Your task to perform on an android device: Play the last video I watched on Youtube Image 0: 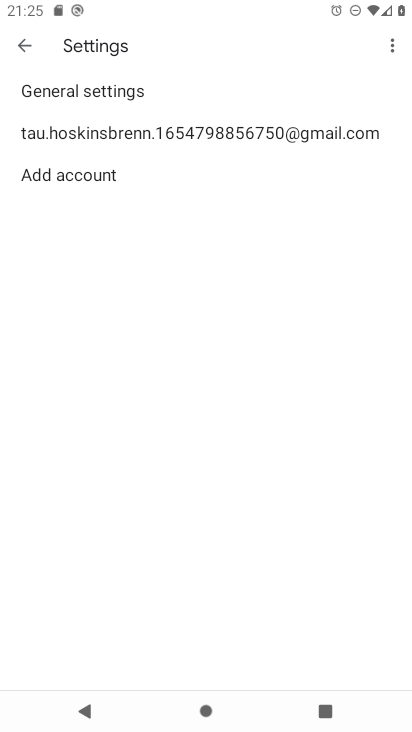
Step 0: press home button
Your task to perform on an android device: Play the last video I watched on Youtube Image 1: 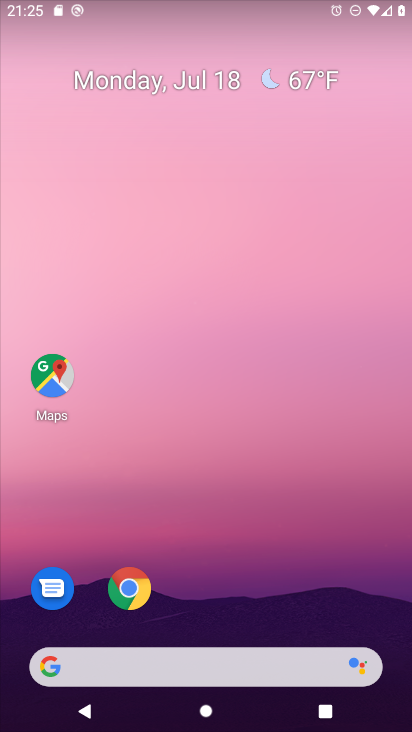
Step 1: drag from (382, 587) to (331, 181)
Your task to perform on an android device: Play the last video I watched on Youtube Image 2: 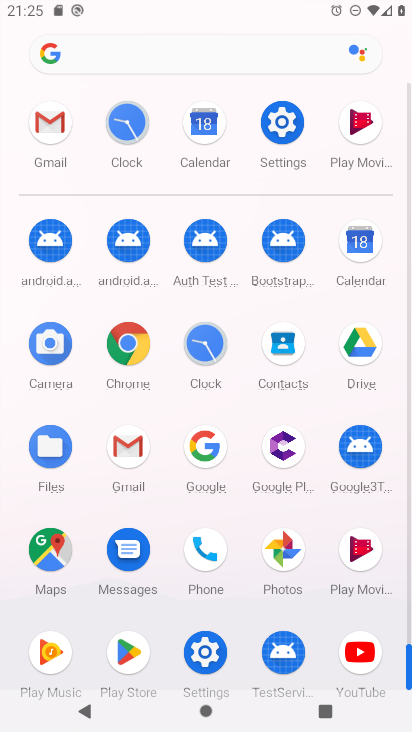
Step 2: click (360, 655)
Your task to perform on an android device: Play the last video I watched on Youtube Image 3: 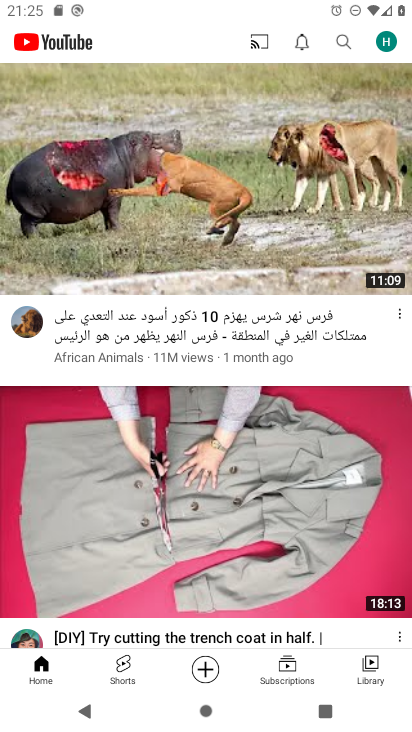
Step 3: click (364, 662)
Your task to perform on an android device: Play the last video I watched on Youtube Image 4: 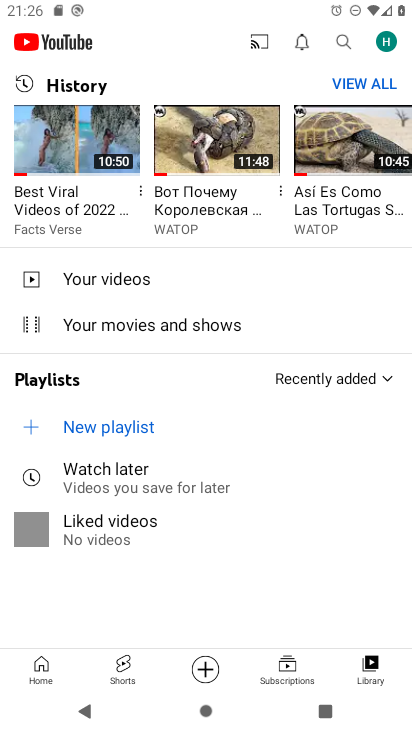
Step 4: click (75, 138)
Your task to perform on an android device: Play the last video I watched on Youtube Image 5: 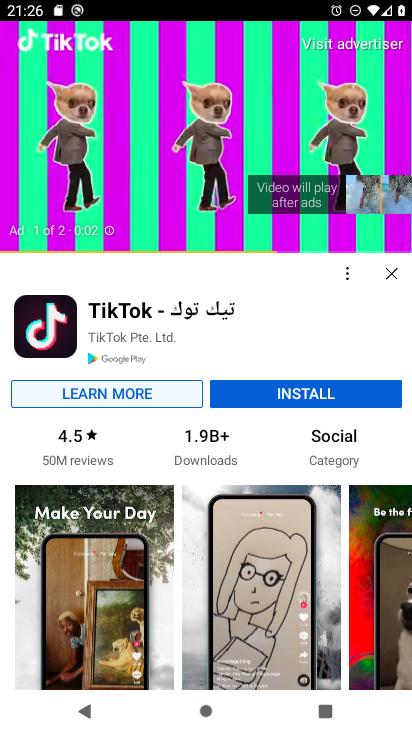
Step 5: click (392, 272)
Your task to perform on an android device: Play the last video I watched on Youtube Image 6: 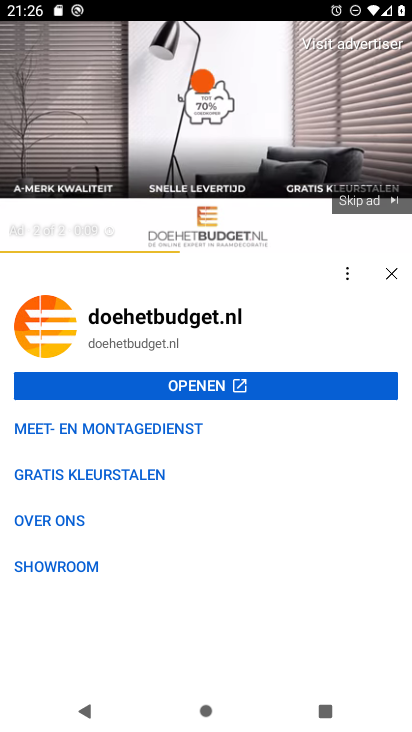
Step 6: click (374, 201)
Your task to perform on an android device: Play the last video I watched on Youtube Image 7: 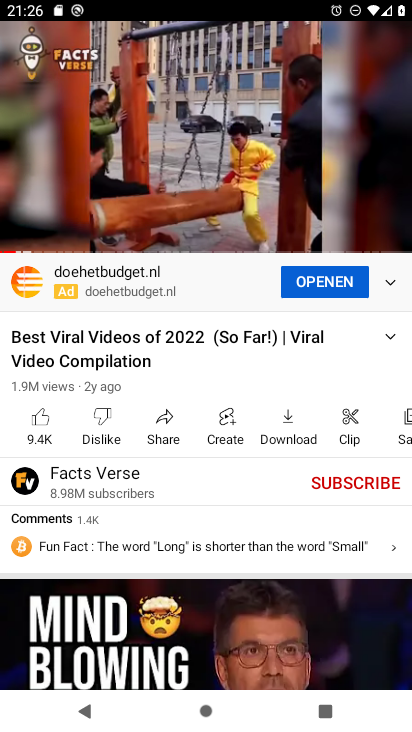
Step 7: click (211, 131)
Your task to perform on an android device: Play the last video I watched on Youtube Image 8: 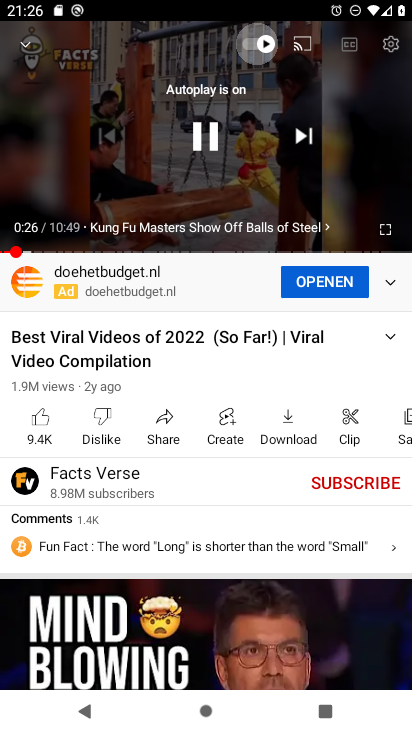
Step 8: click (211, 131)
Your task to perform on an android device: Play the last video I watched on Youtube Image 9: 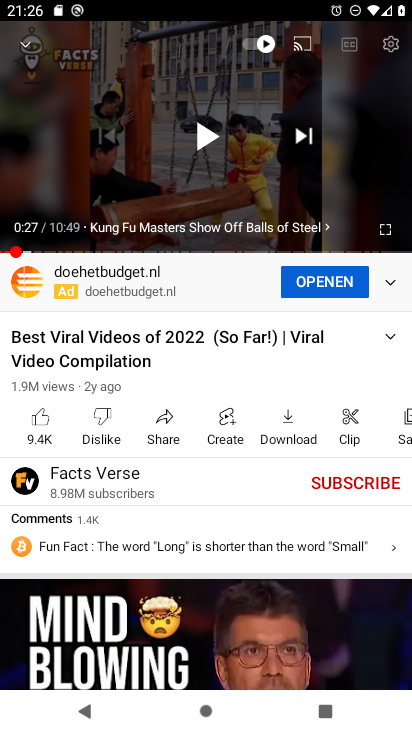
Step 9: task complete